Your task to perform on an android device: find snoozed emails in the gmail app Image 0: 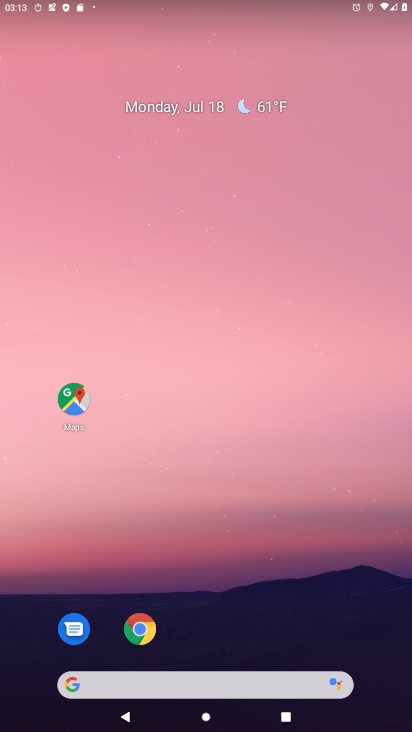
Step 0: drag from (202, 674) to (280, 172)
Your task to perform on an android device: find snoozed emails in the gmail app Image 1: 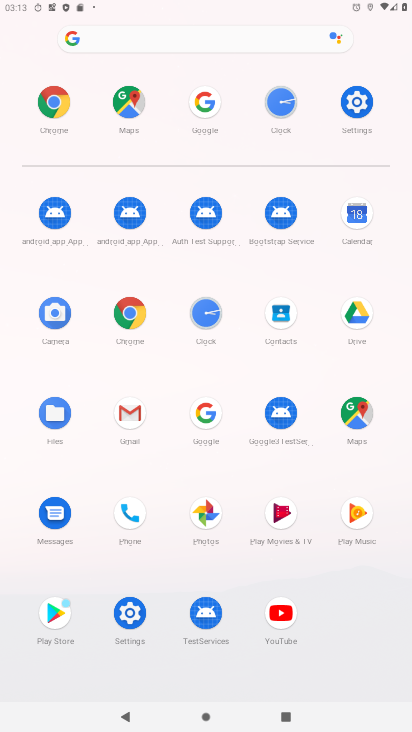
Step 1: click (132, 412)
Your task to perform on an android device: find snoozed emails in the gmail app Image 2: 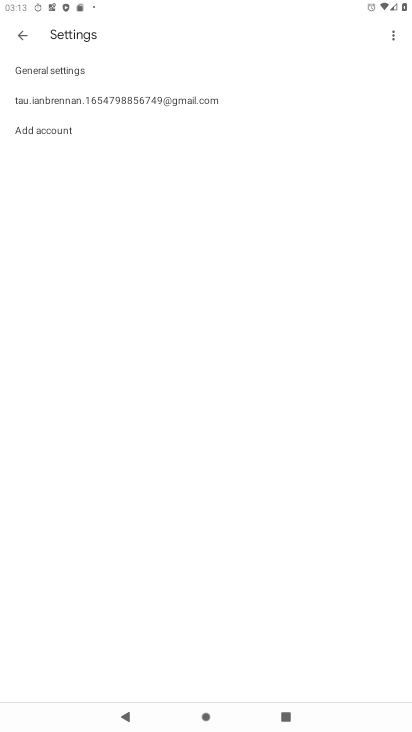
Step 2: click (118, 98)
Your task to perform on an android device: find snoozed emails in the gmail app Image 3: 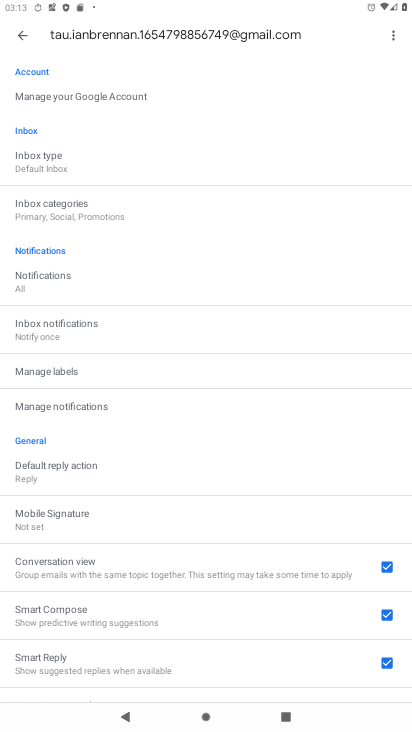
Step 3: press back button
Your task to perform on an android device: find snoozed emails in the gmail app Image 4: 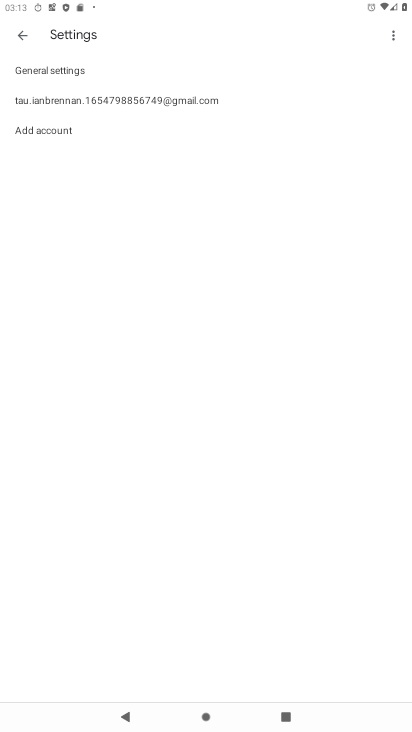
Step 4: press home button
Your task to perform on an android device: find snoozed emails in the gmail app Image 5: 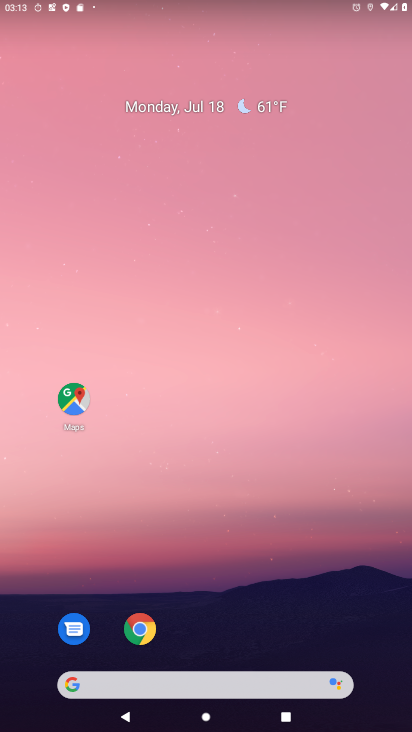
Step 5: drag from (204, 675) to (250, 260)
Your task to perform on an android device: find snoozed emails in the gmail app Image 6: 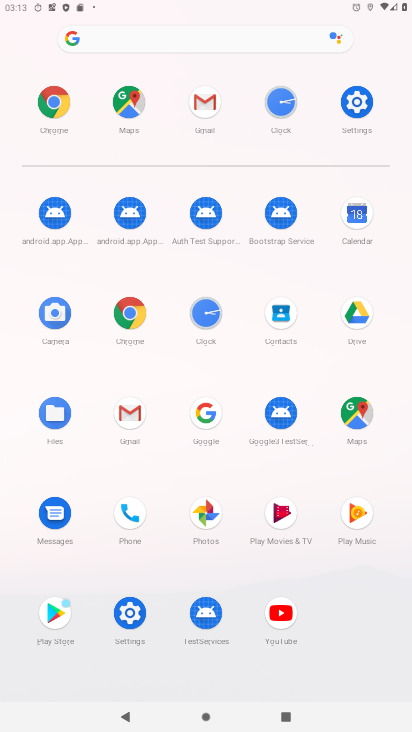
Step 6: click (127, 414)
Your task to perform on an android device: find snoozed emails in the gmail app Image 7: 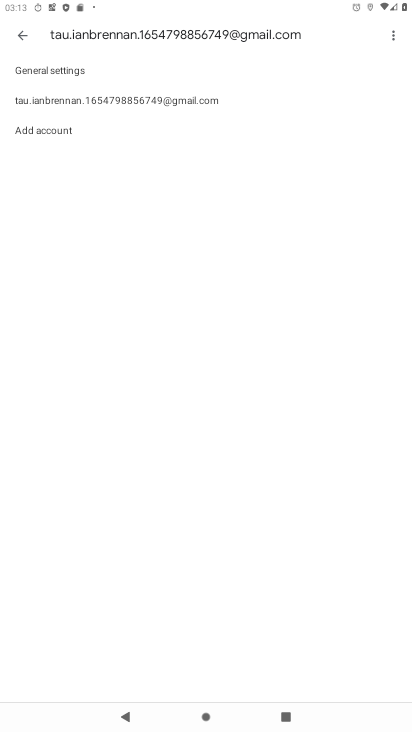
Step 7: press back button
Your task to perform on an android device: find snoozed emails in the gmail app Image 8: 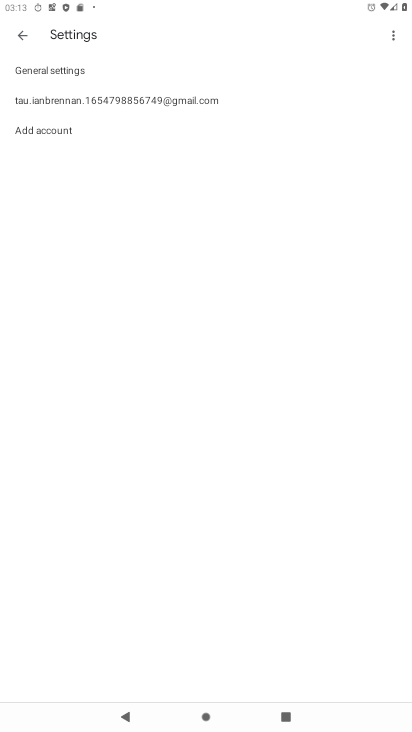
Step 8: press back button
Your task to perform on an android device: find snoozed emails in the gmail app Image 9: 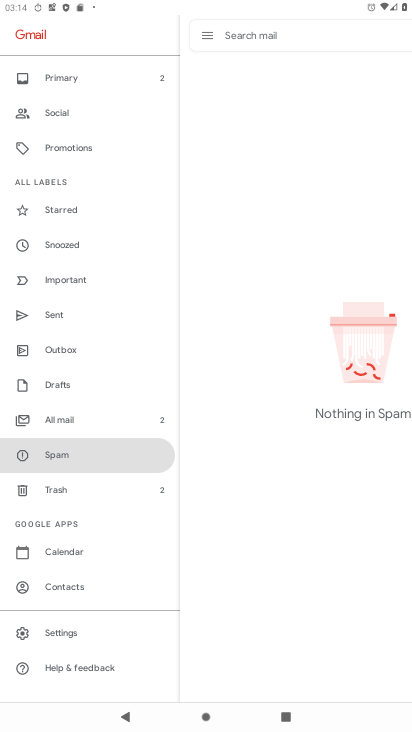
Step 9: click (63, 250)
Your task to perform on an android device: find snoozed emails in the gmail app Image 10: 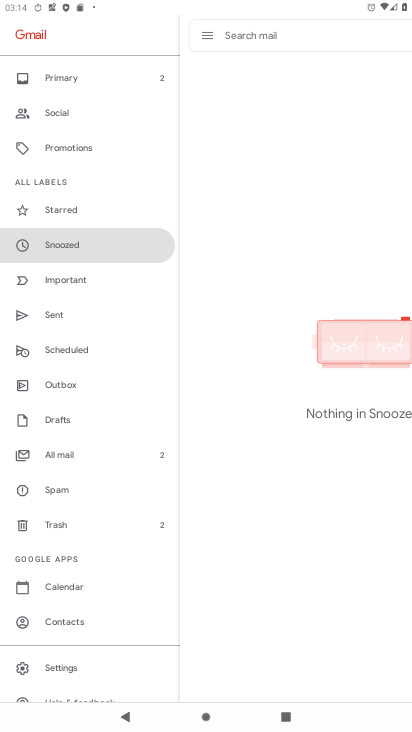
Step 10: click (67, 80)
Your task to perform on an android device: find snoozed emails in the gmail app Image 11: 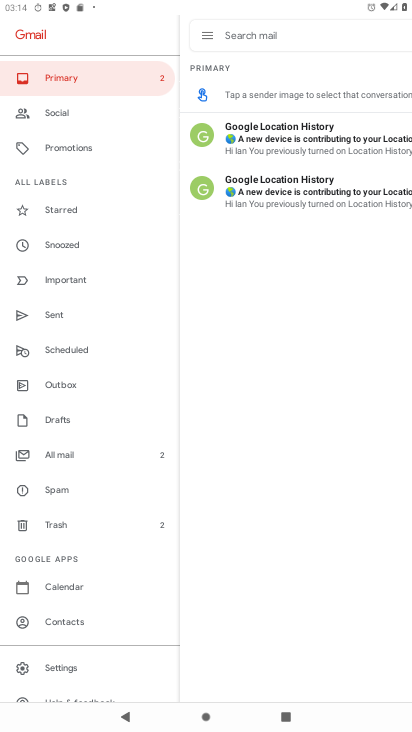
Step 11: click (289, 155)
Your task to perform on an android device: find snoozed emails in the gmail app Image 12: 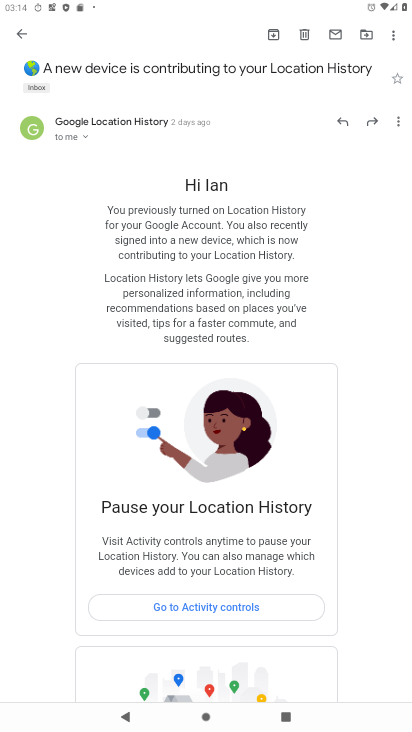
Step 12: task complete